Your task to perform on an android device: delete location history Image 0: 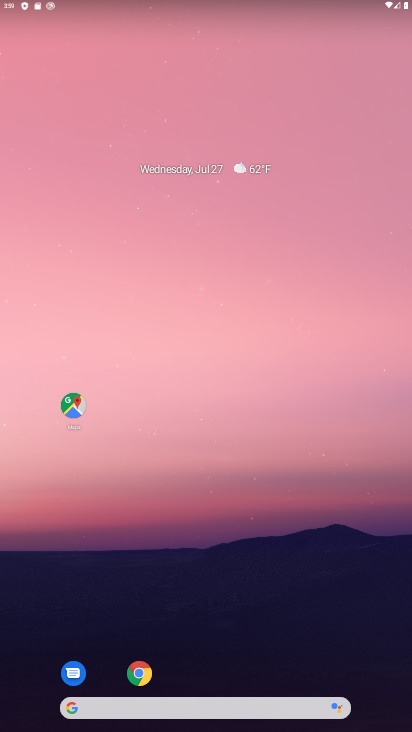
Step 0: press home button
Your task to perform on an android device: delete location history Image 1: 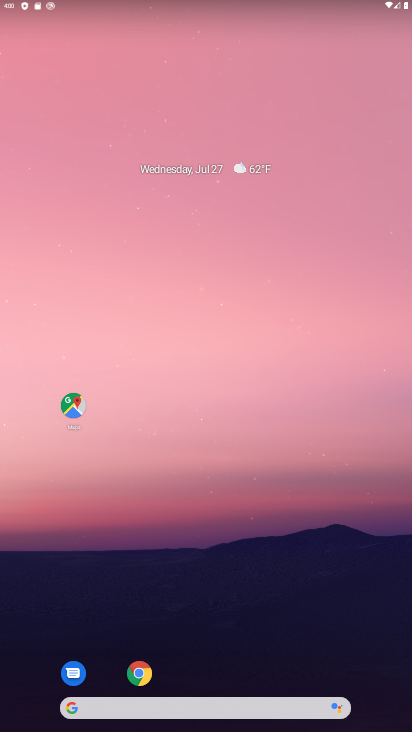
Step 1: drag from (28, 645) to (305, 159)
Your task to perform on an android device: delete location history Image 2: 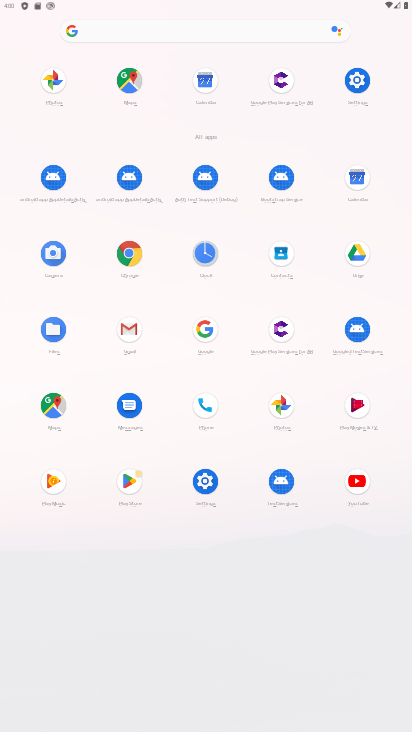
Step 2: click (358, 76)
Your task to perform on an android device: delete location history Image 3: 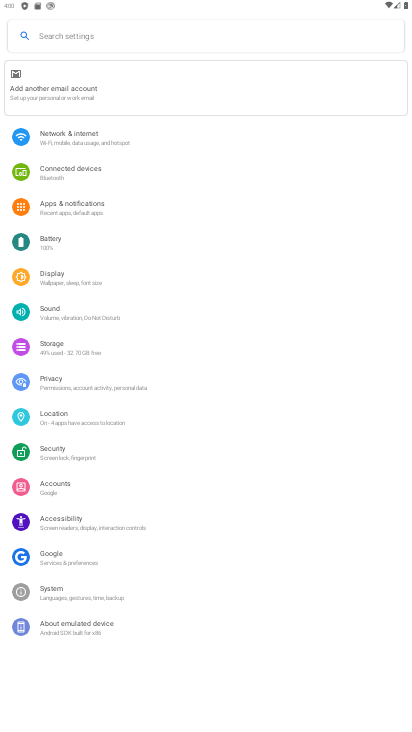
Step 3: click (63, 411)
Your task to perform on an android device: delete location history Image 4: 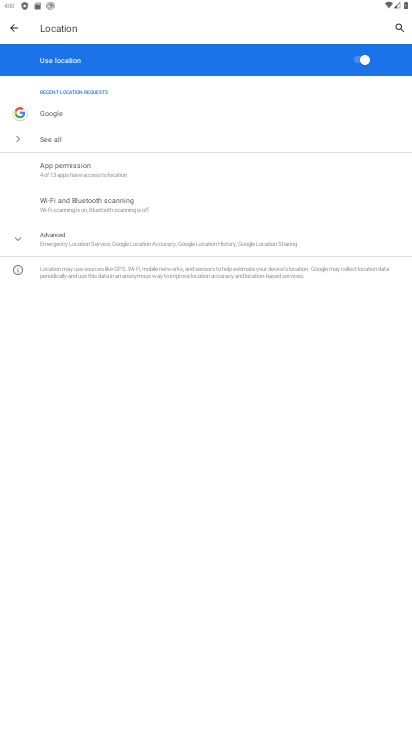
Step 4: click (90, 238)
Your task to perform on an android device: delete location history Image 5: 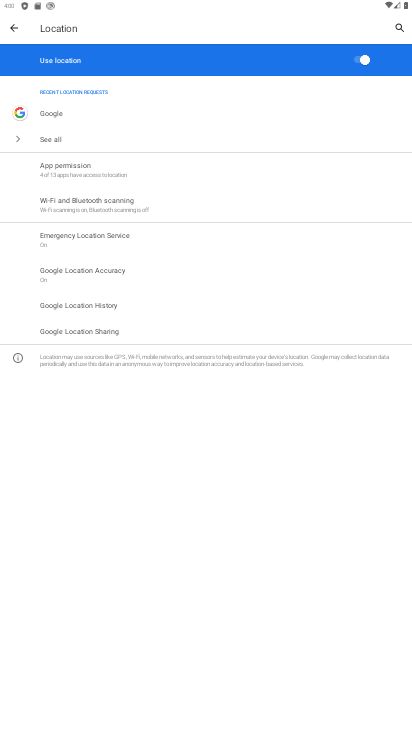
Step 5: click (94, 299)
Your task to perform on an android device: delete location history Image 6: 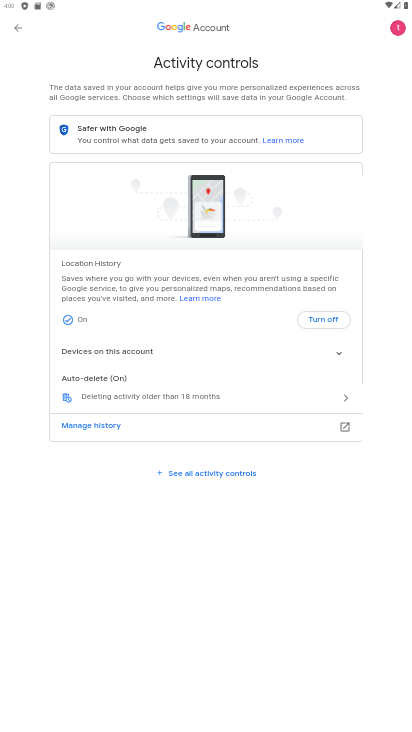
Step 6: click (105, 349)
Your task to perform on an android device: delete location history Image 7: 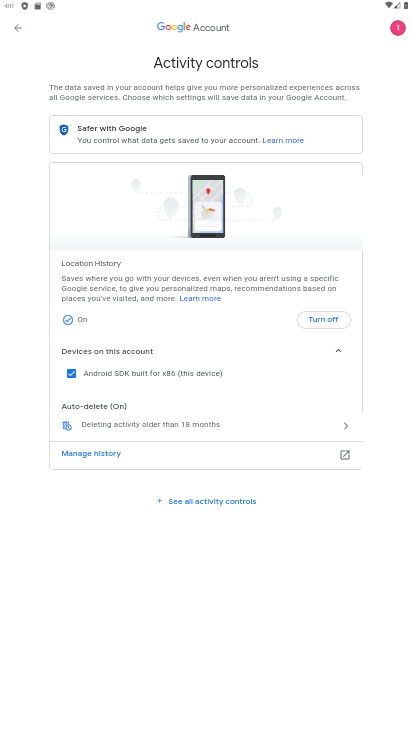
Step 7: click (148, 417)
Your task to perform on an android device: delete location history Image 8: 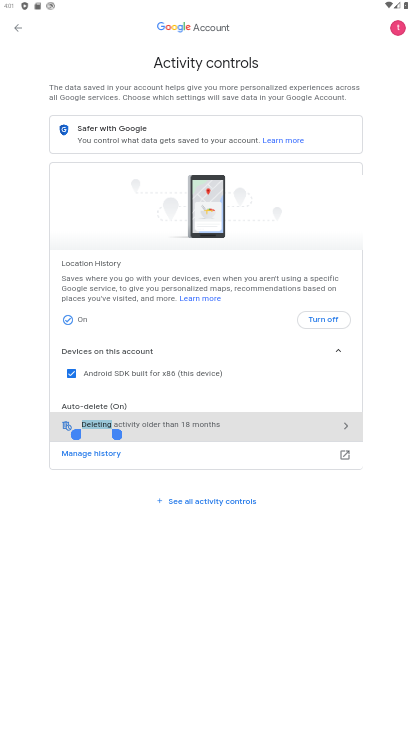
Step 8: task complete